Your task to perform on an android device: See recent photos Image 0: 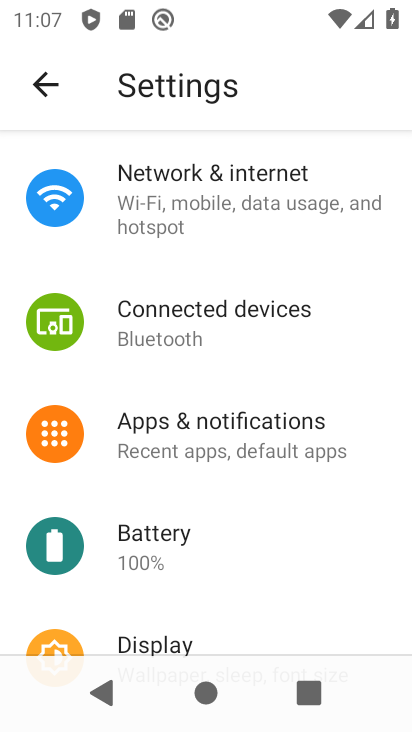
Step 0: press home button
Your task to perform on an android device: See recent photos Image 1: 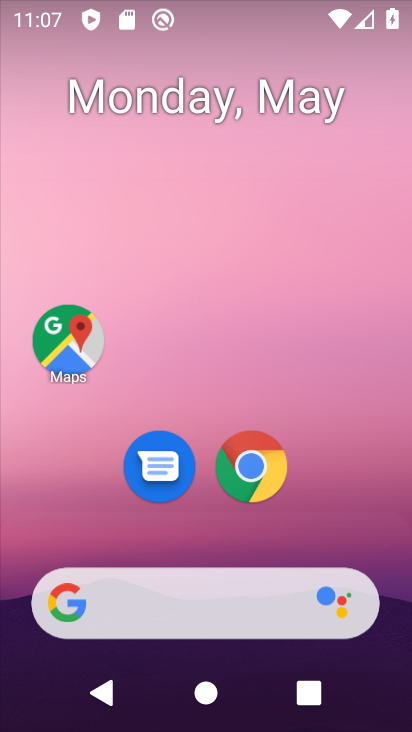
Step 1: drag from (153, 400) to (226, 137)
Your task to perform on an android device: See recent photos Image 2: 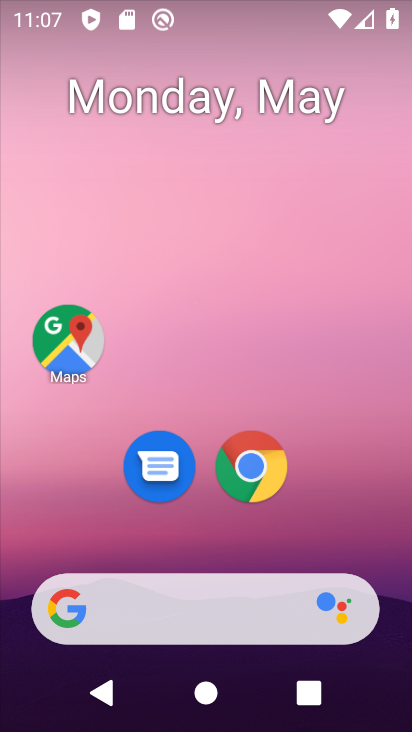
Step 2: drag from (154, 561) to (273, 70)
Your task to perform on an android device: See recent photos Image 3: 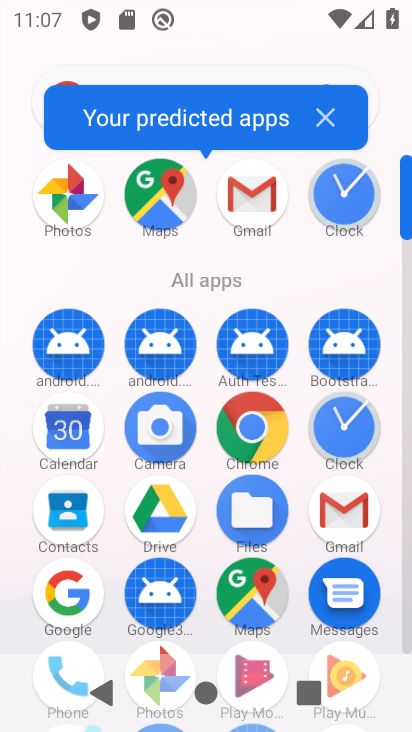
Step 3: drag from (201, 557) to (310, 170)
Your task to perform on an android device: See recent photos Image 4: 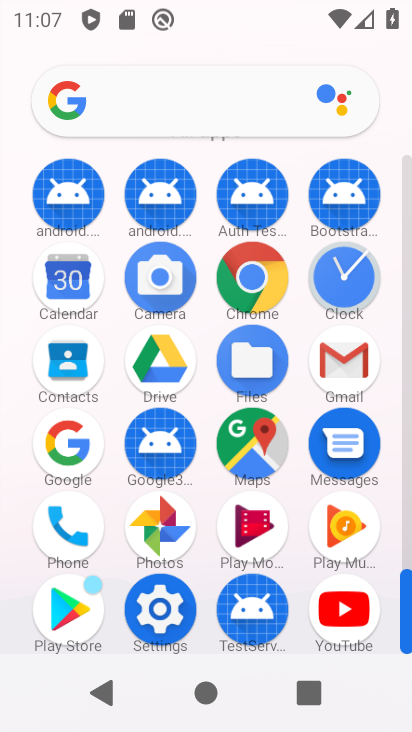
Step 4: click (157, 537)
Your task to perform on an android device: See recent photos Image 5: 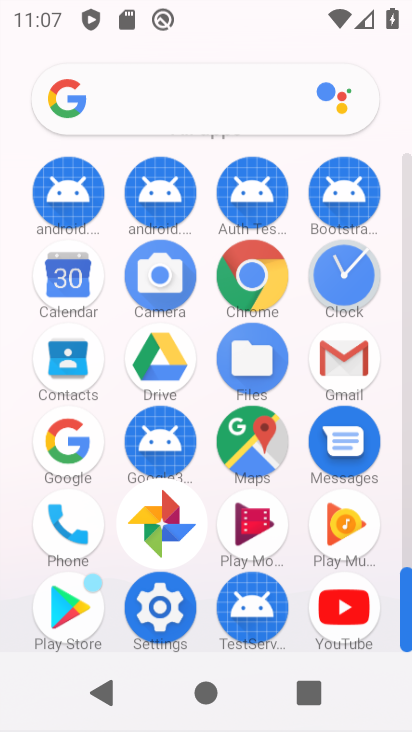
Step 5: click (140, 549)
Your task to perform on an android device: See recent photos Image 6: 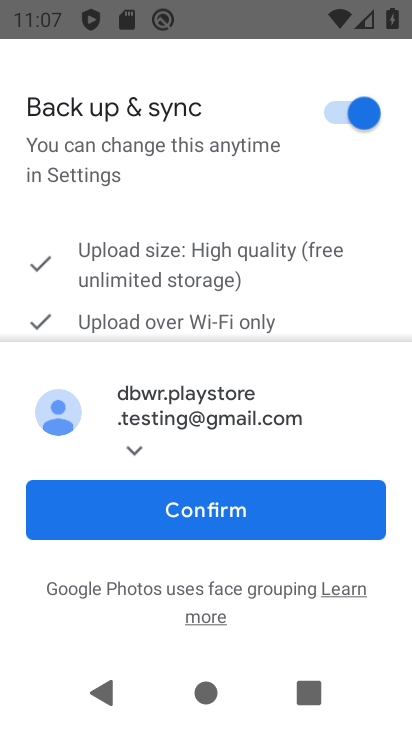
Step 6: click (276, 510)
Your task to perform on an android device: See recent photos Image 7: 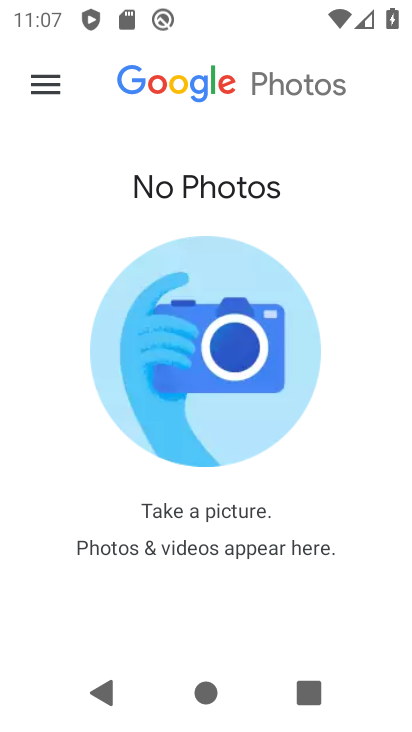
Step 7: click (276, 510)
Your task to perform on an android device: See recent photos Image 8: 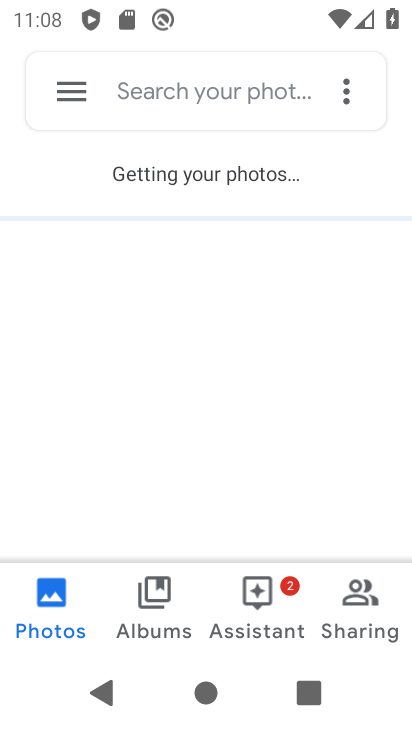
Step 8: click (351, 474)
Your task to perform on an android device: See recent photos Image 9: 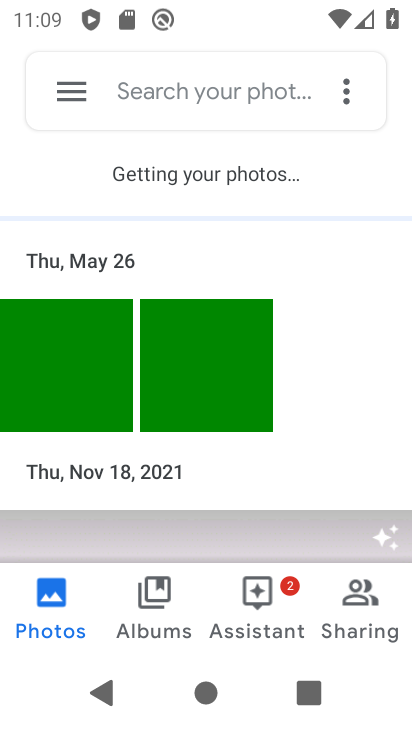
Step 9: click (153, 199)
Your task to perform on an android device: See recent photos Image 10: 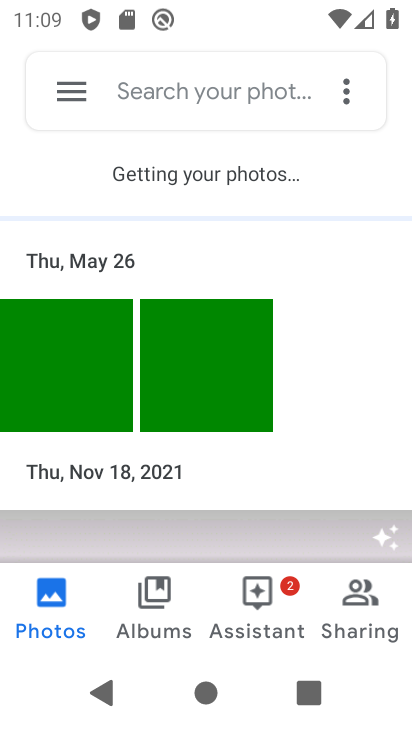
Step 10: task complete